Your task to perform on an android device: Search for pizza restaurants on Maps Image 0: 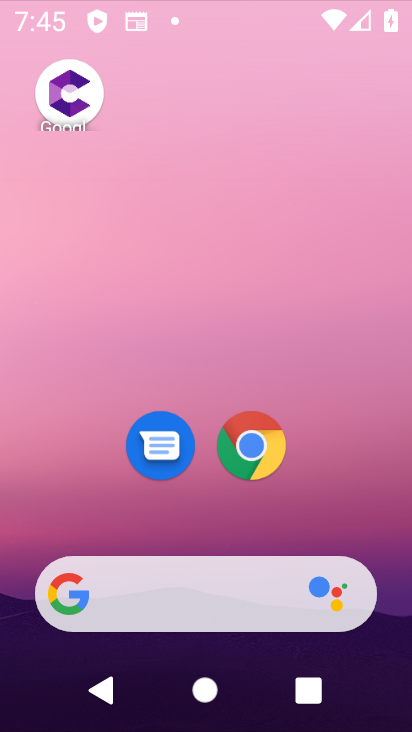
Step 0: click (325, 259)
Your task to perform on an android device: Search for pizza restaurants on Maps Image 1: 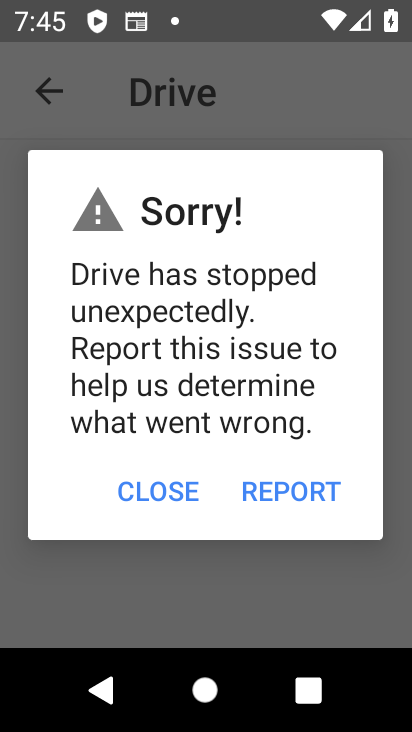
Step 1: press home button
Your task to perform on an android device: Search for pizza restaurants on Maps Image 2: 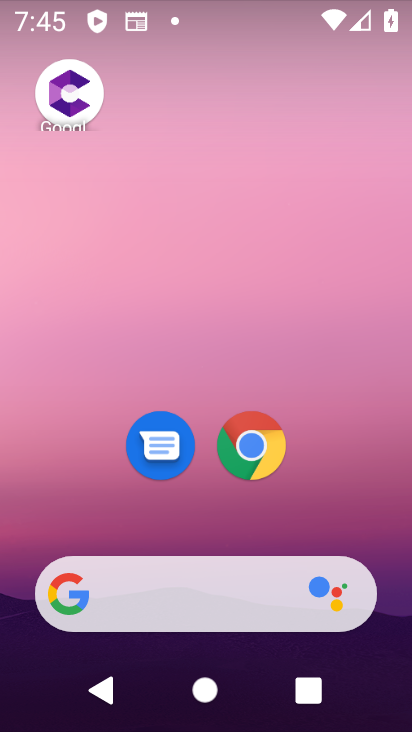
Step 2: drag from (257, 515) to (290, 68)
Your task to perform on an android device: Search for pizza restaurants on Maps Image 3: 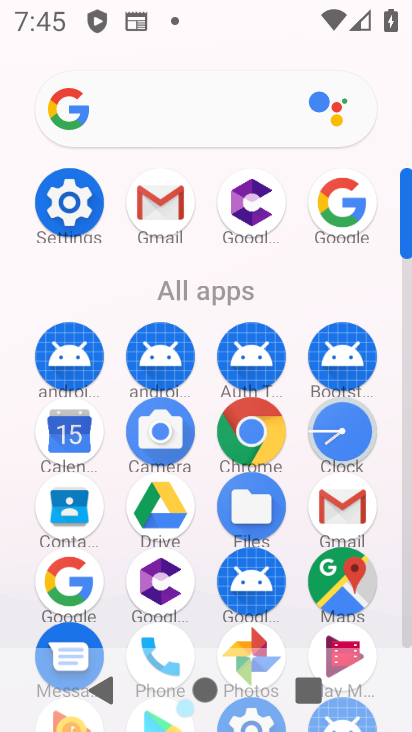
Step 3: drag from (307, 271) to (325, 194)
Your task to perform on an android device: Search for pizza restaurants on Maps Image 4: 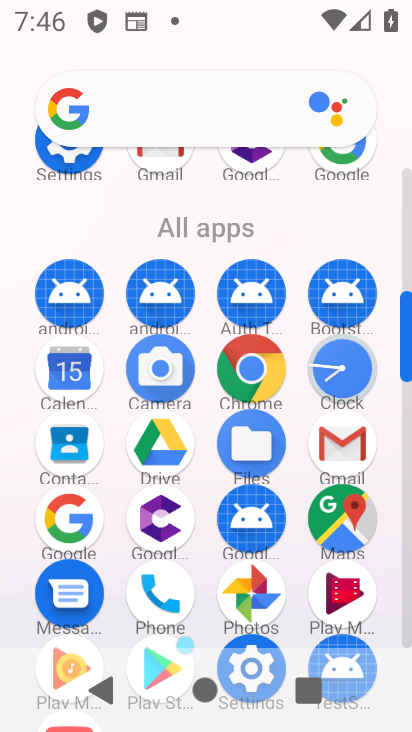
Step 4: click (354, 530)
Your task to perform on an android device: Search for pizza restaurants on Maps Image 5: 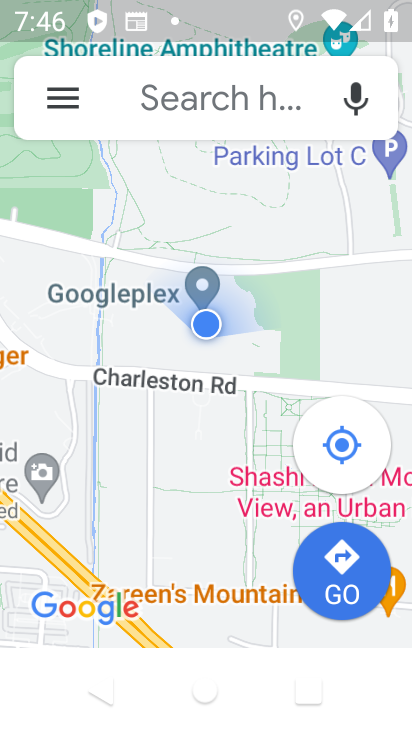
Step 5: click (272, 113)
Your task to perform on an android device: Search for pizza restaurants on Maps Image 6: 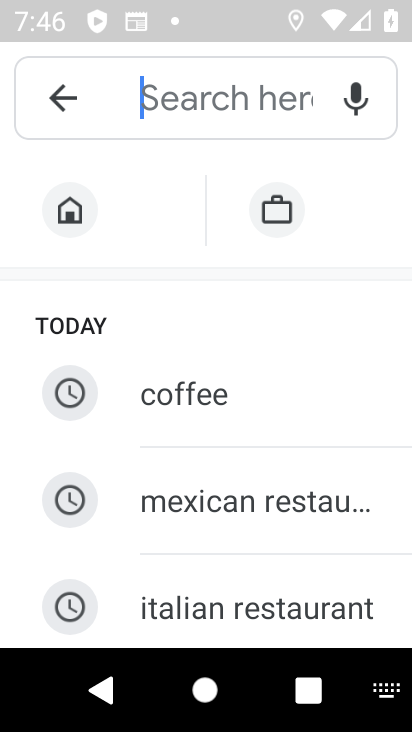
Step 6: drag from (301, 537) to (355, 287)
Your task to perform on an android device: Search for pizza restaurants on Maps Image 7: 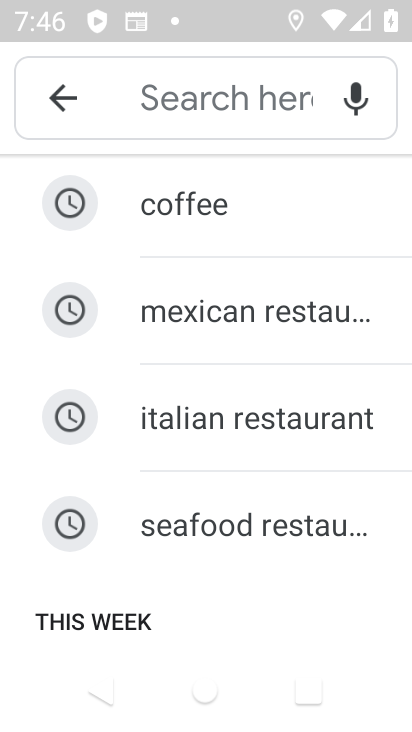
Step 7: drag from (358, 388) to (359, 288)
Your task to perform on an android device: Search for pizza restaurants on Maps Image 8: 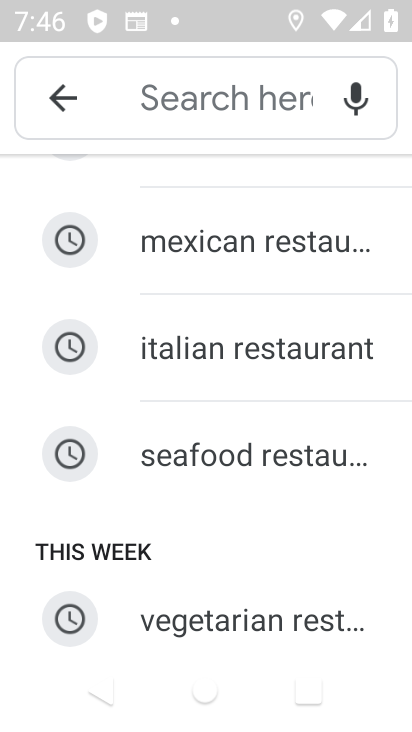
Step 8: drag from (301, 515) to (321, 278)
Your task to perform on an android device: Search for pizza restaurants on Maps Image 9: 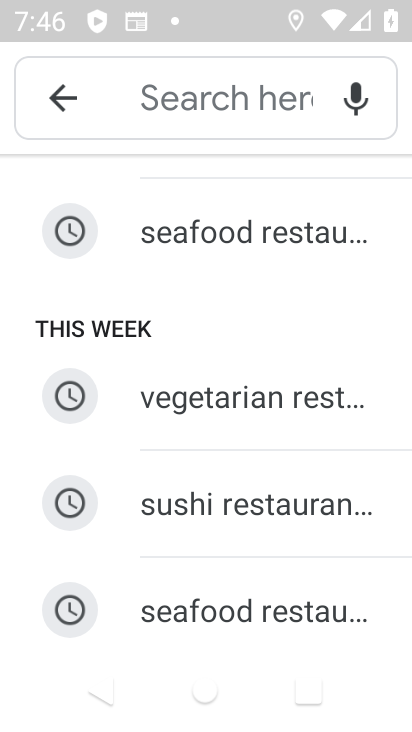
Step 9: drag from (296, 564) to (332, 325)
Your task to perform on an android device: Search for pizza restaurants on Maps Image 10: 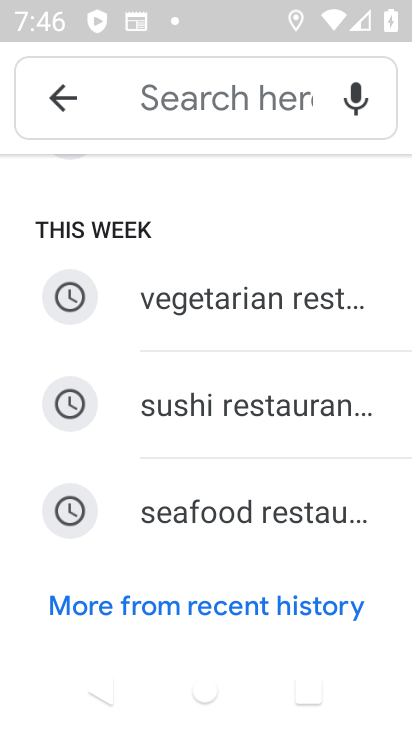
Step 10: click (249, 108)
Your task to perform on an android device: Search for pizza restaurants on Maps Image 11: 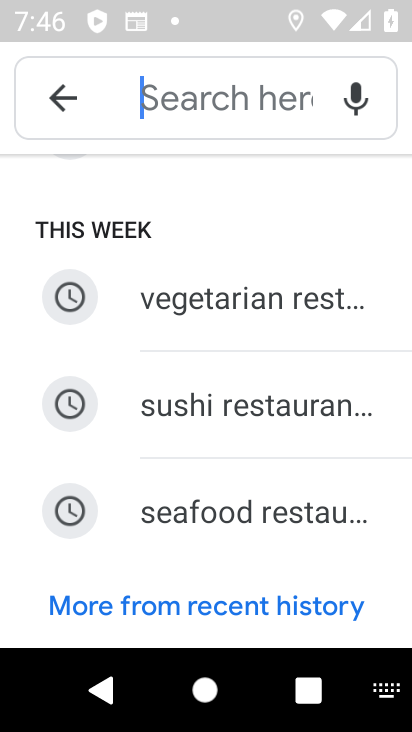
Step 11: type "pizza "
Your task to perform on an android device: Search for pizza restaurants on Maps Image 12: 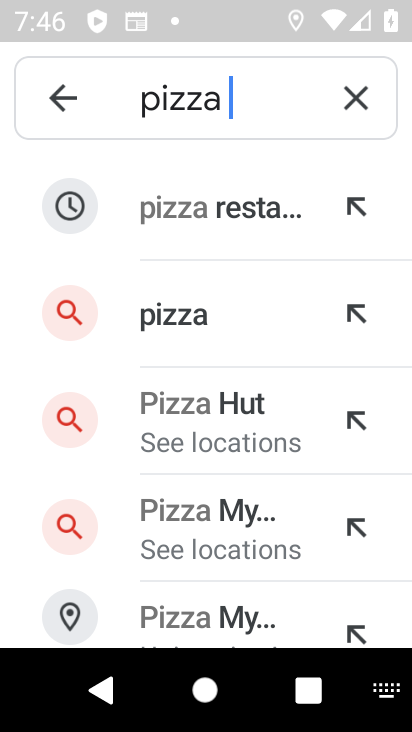
Step 12: click (229, 208)
Your task to perform on an android device: Search for pizza restaurants on Maps Image 13: 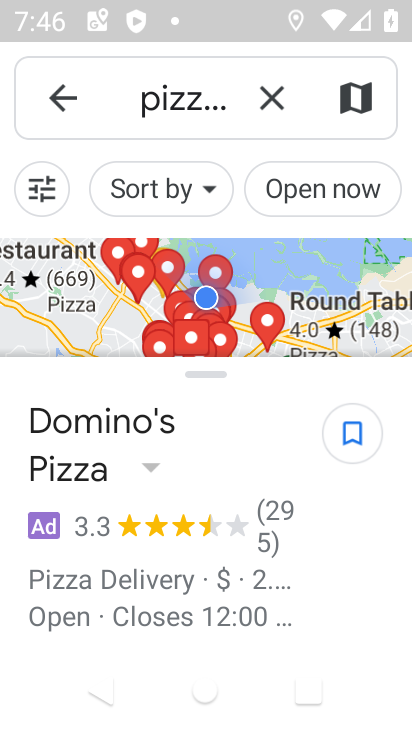
Step 13: task complete